Your task to perform on an android device: Open the calendar and show me this week's events? Image 0: 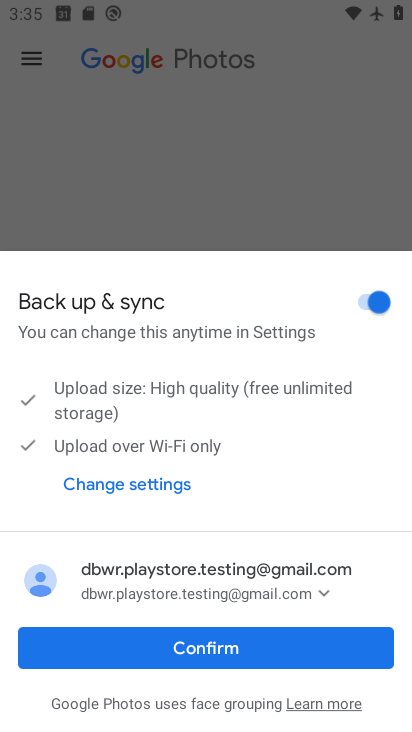
Step 0: press home button
Your task to perform on an android device: Open the calendar and show me this week's events? Image 1: 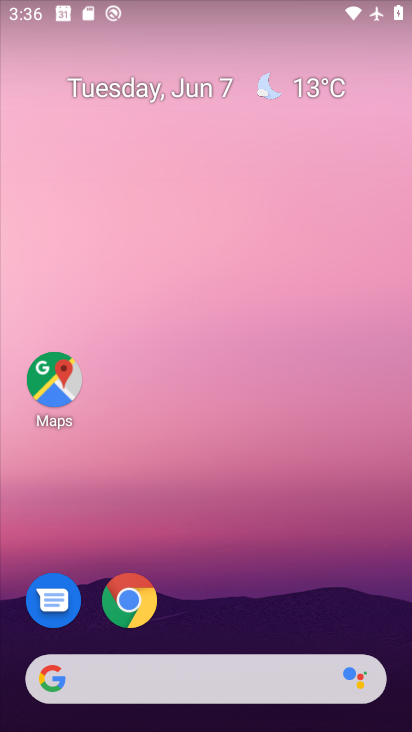
Step 1: drag from (281, 564) to (222, 154)
Your task to perform on an android device: Open the calendar and show me this week's events? Image 2: 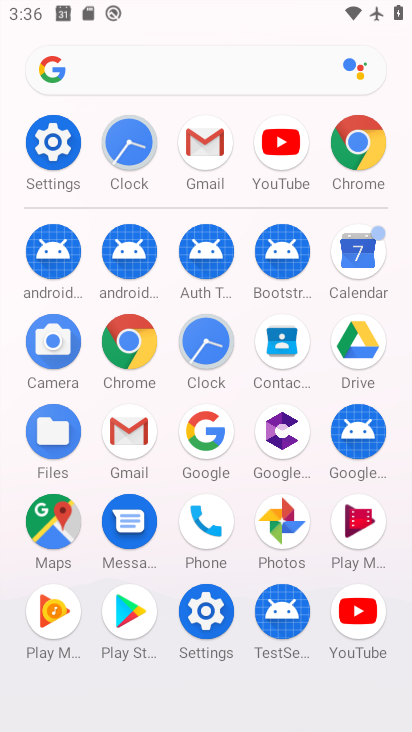
Step 2: click (351, 262)
Your task to perform on an android device: Open the calendar and show me this week's events? Image 3: 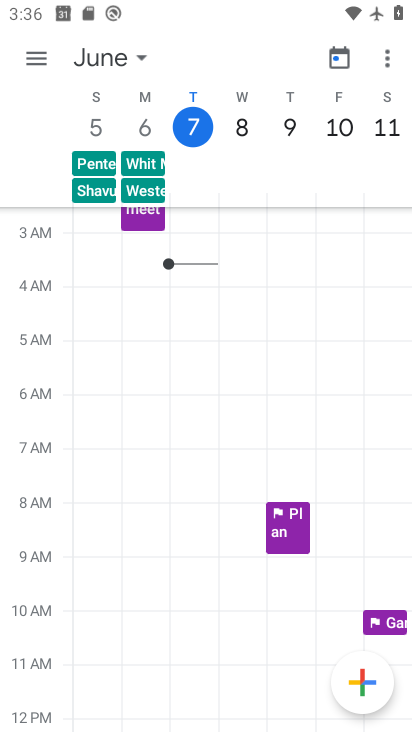
Step 3: task complete